Your task to perform on an android device: open app "Pinterest" Image 0: 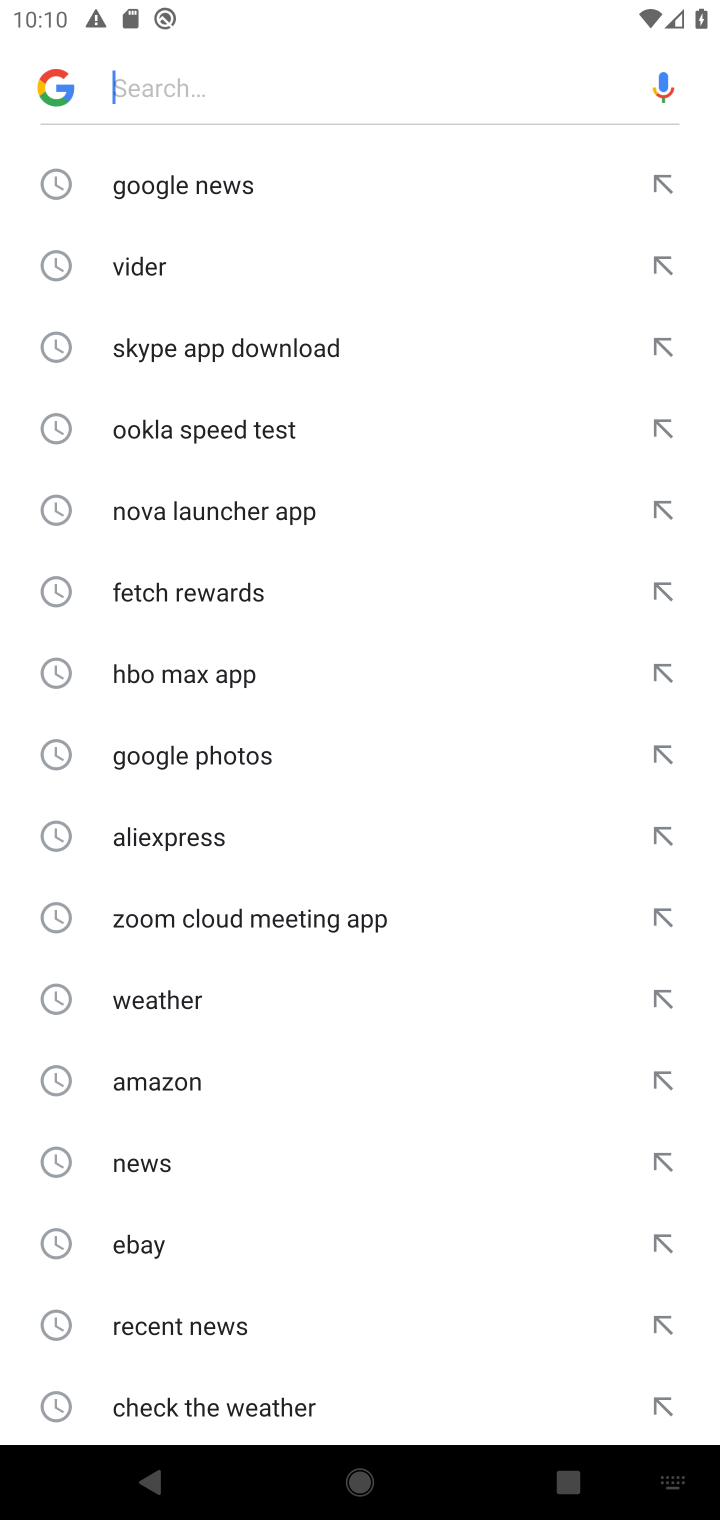
Step 0: press home button
Your task to perform on an android device: open app "Pinterest" Image 1: 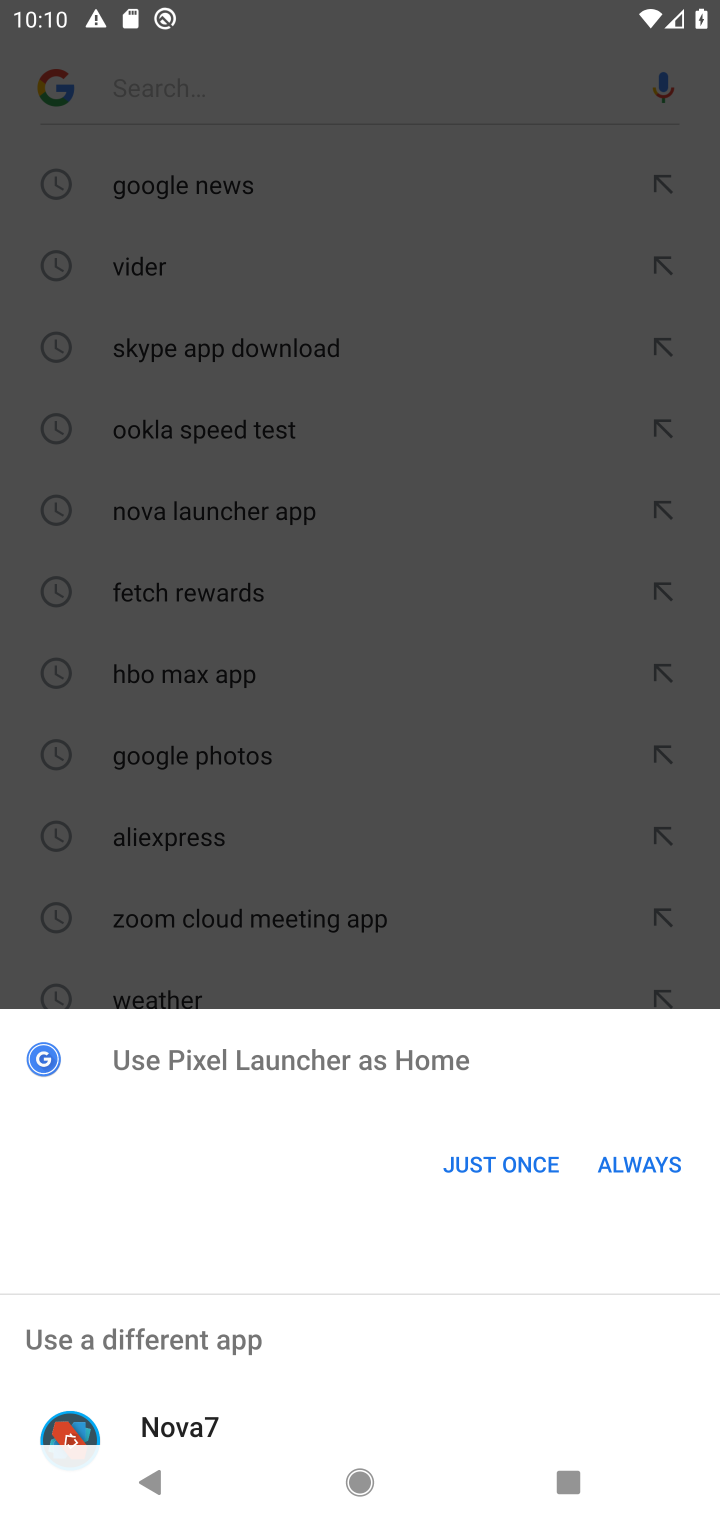
Step 1: click (402, 1184)
Your task to perform on an android device: open app "Pinterest" Image 2: 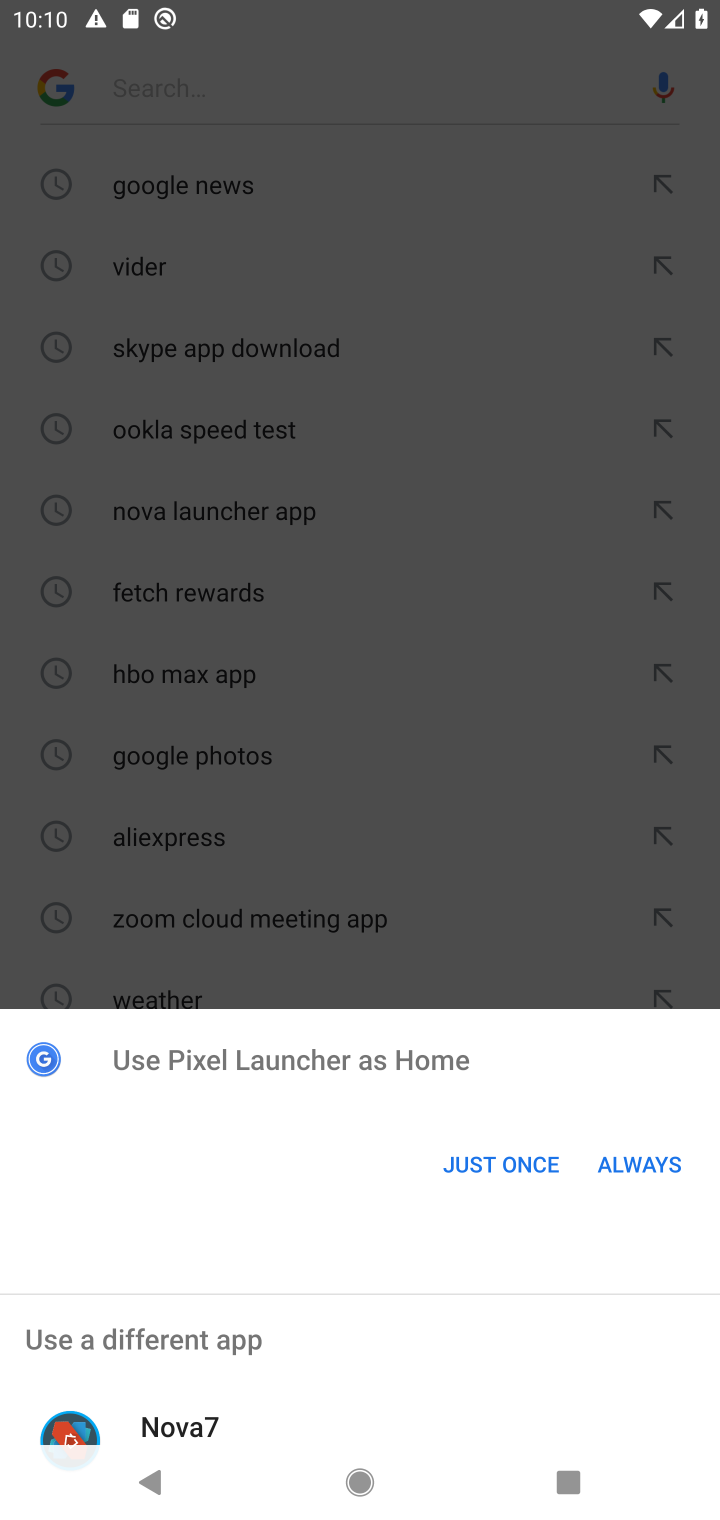
Step 2: click (484, 1174)
Your task to perform on an android device: open app "Pinterest" Image 3: 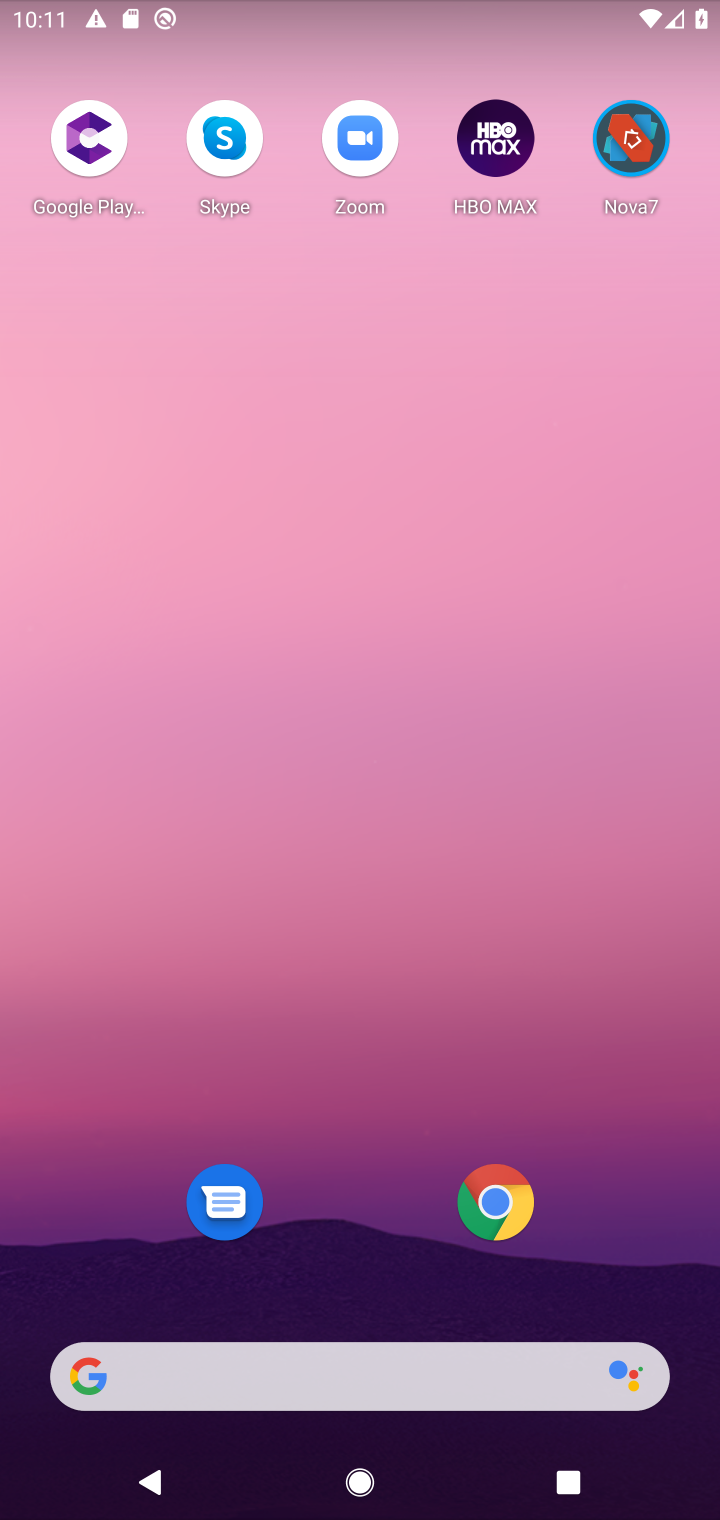
Step 3: click (467, 1380)
Your task to perform on an android device: open app "Pinterest" Image 4: 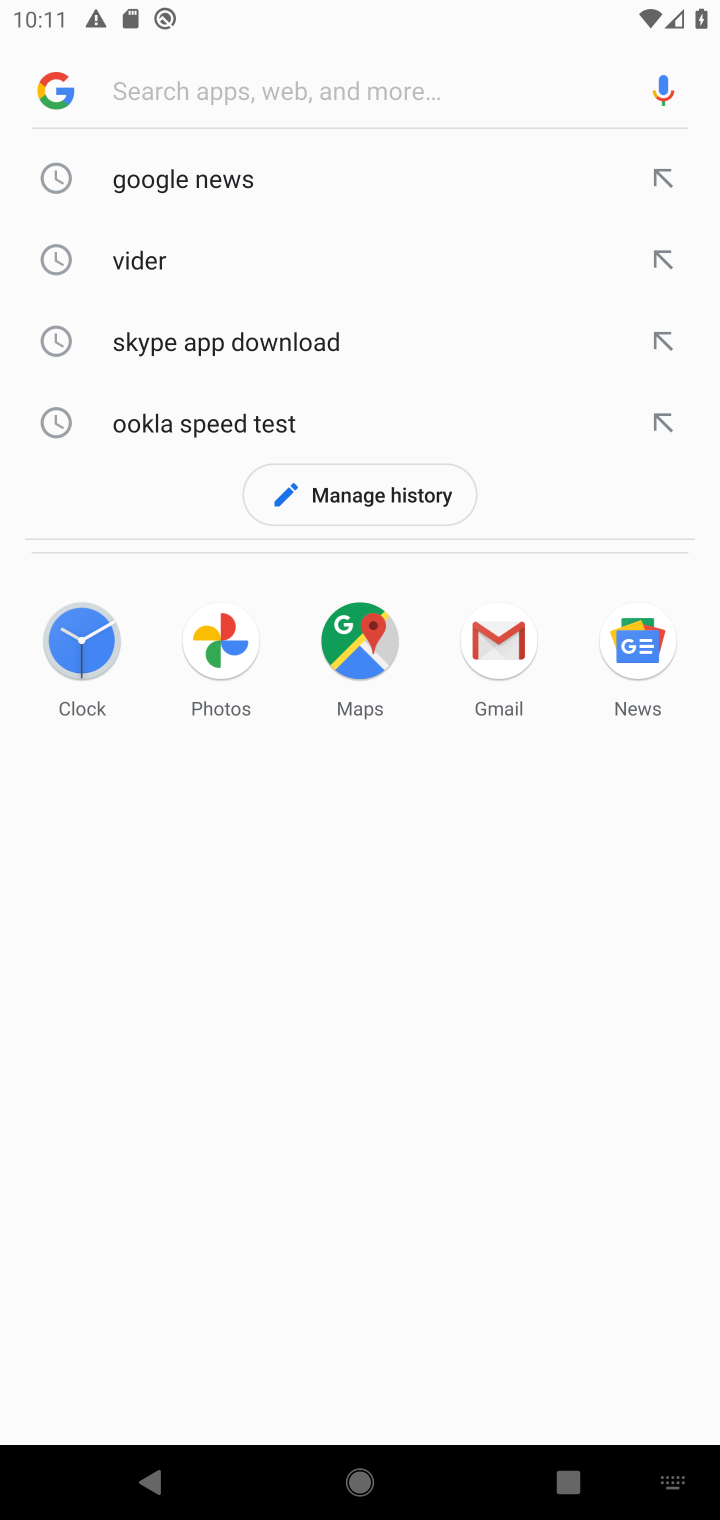
Step 4: type "pinterest"
Your task to perform on an android device: open app "Pinterest" Image 5: 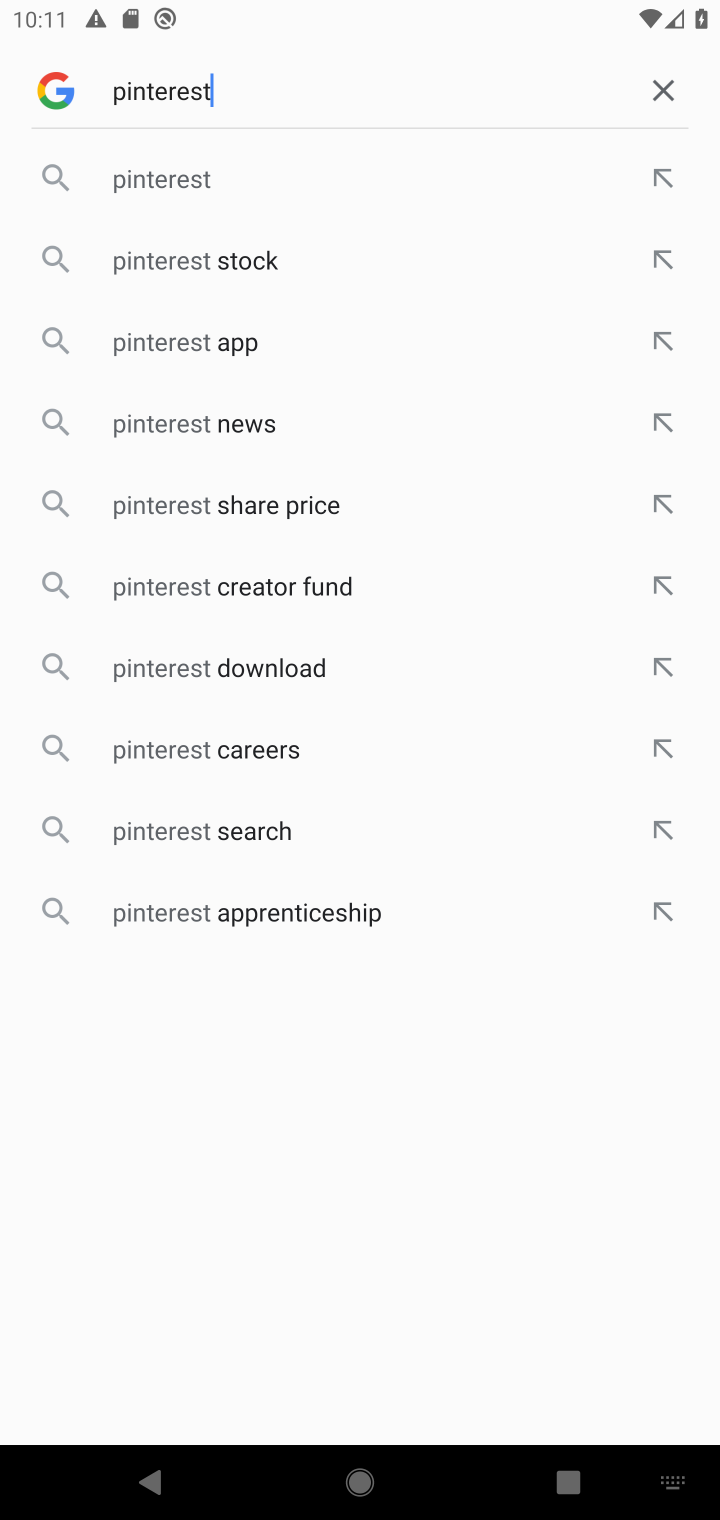
Step 5: click (142, 191)
Your task to perform on an android device: open app "Pinterest" Image 6: 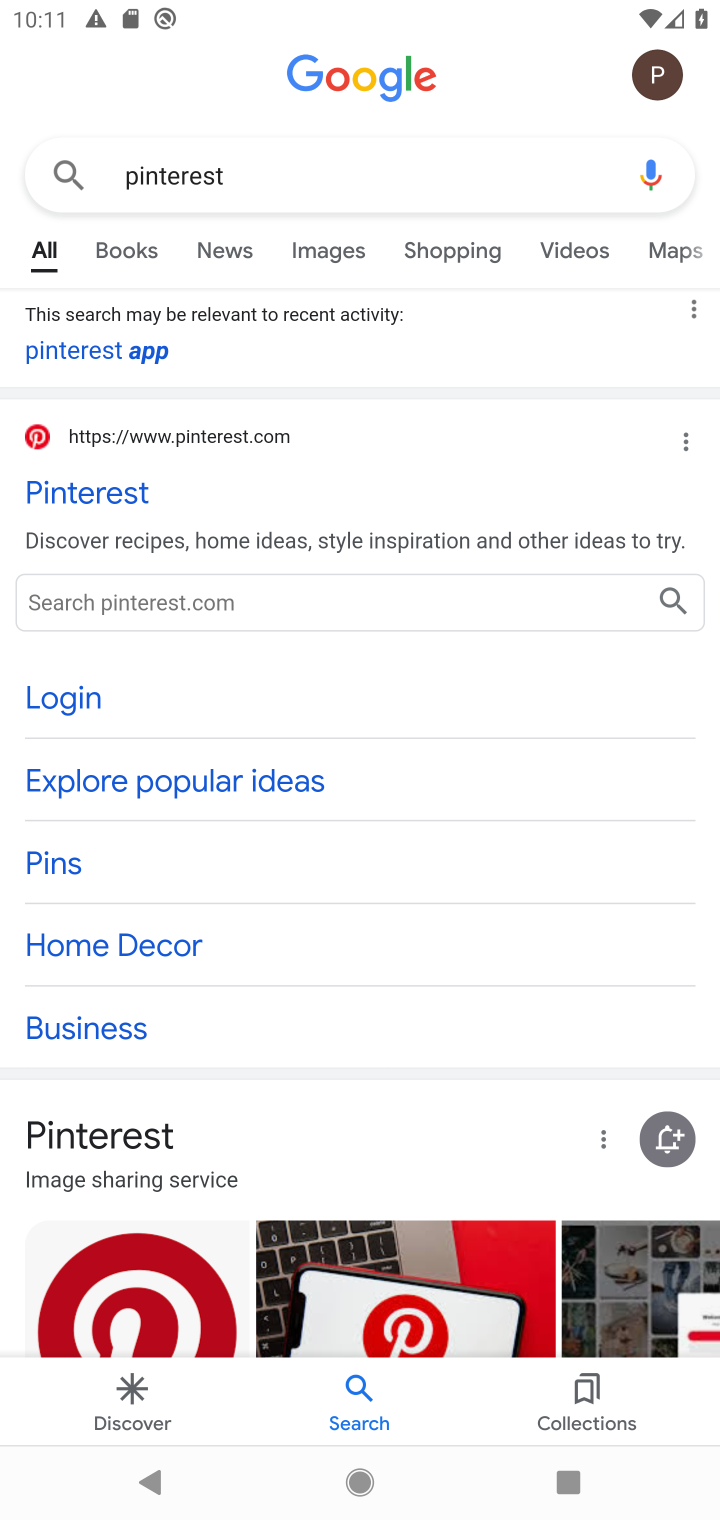
Step 6: drag from (392, 1106) to (463, 180)
Your task to perform on an android device: open app "Pinterest" Image 7: 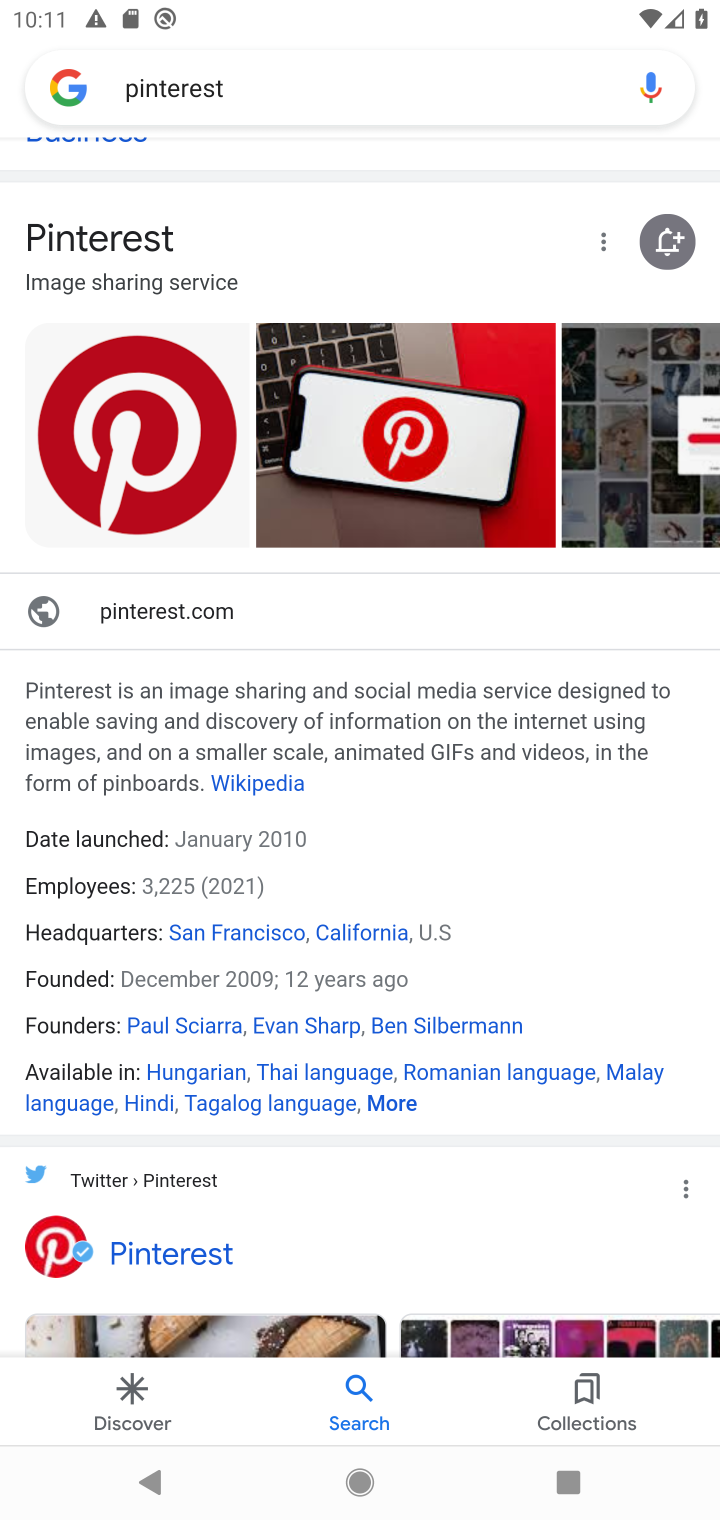
Step 7: drag from (542, 943) to (617, 319)
Your task to perform on an android device: open app "Pinterest" Image 8: 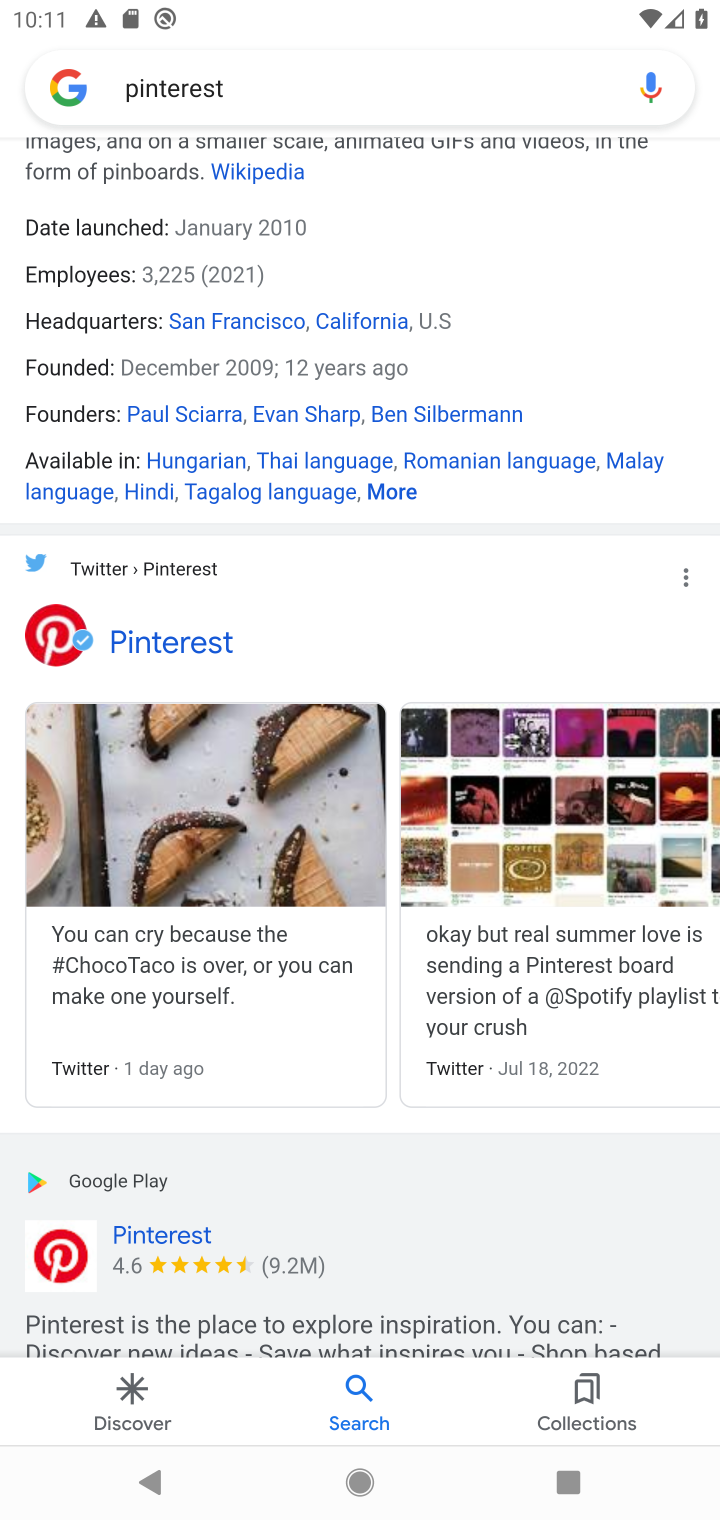
Step 8: drag from (401, 1254) to (450, 258)
Your task to perform on an android device: open app "Pinterest" Image 9: 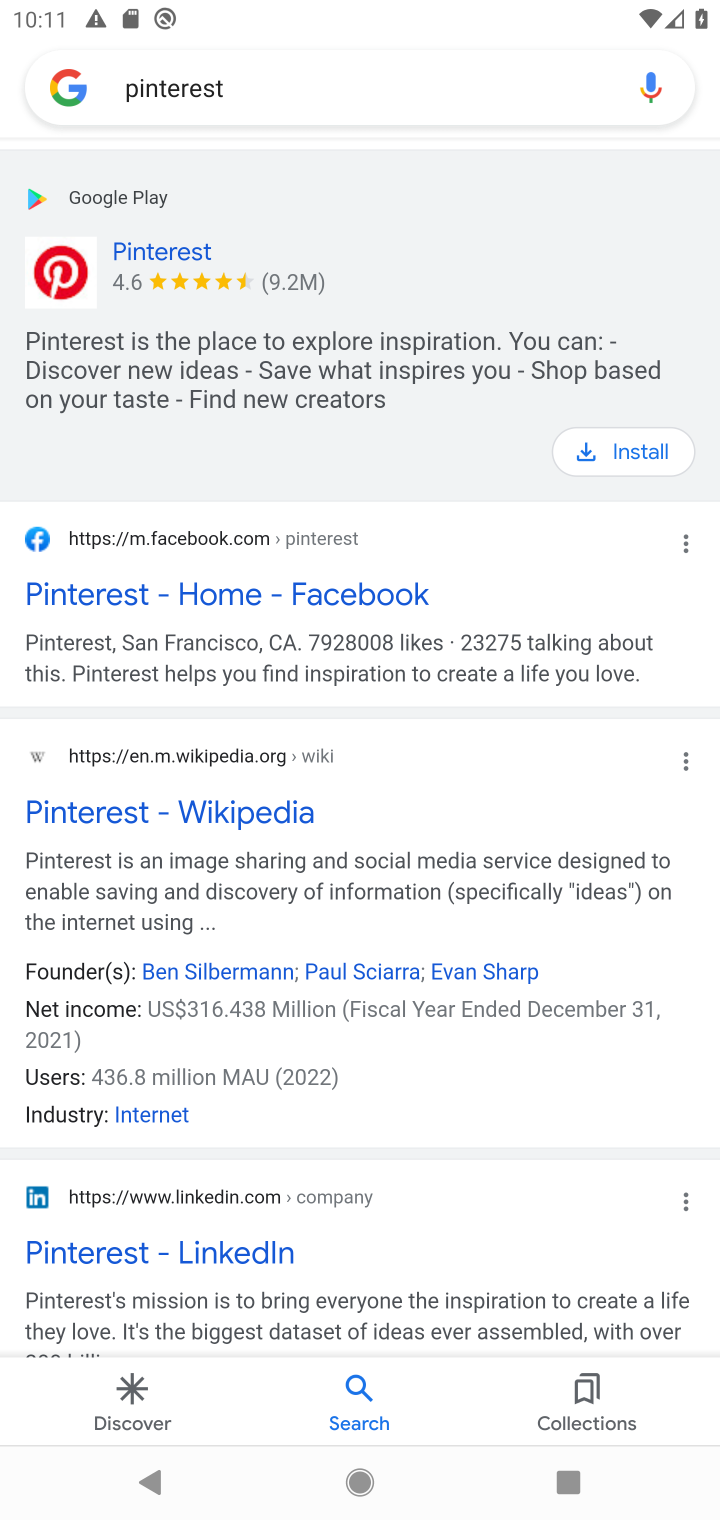
Step 9: click (606, 465)
Your task to perform on an android device: open app "Pinterest" Image 10: 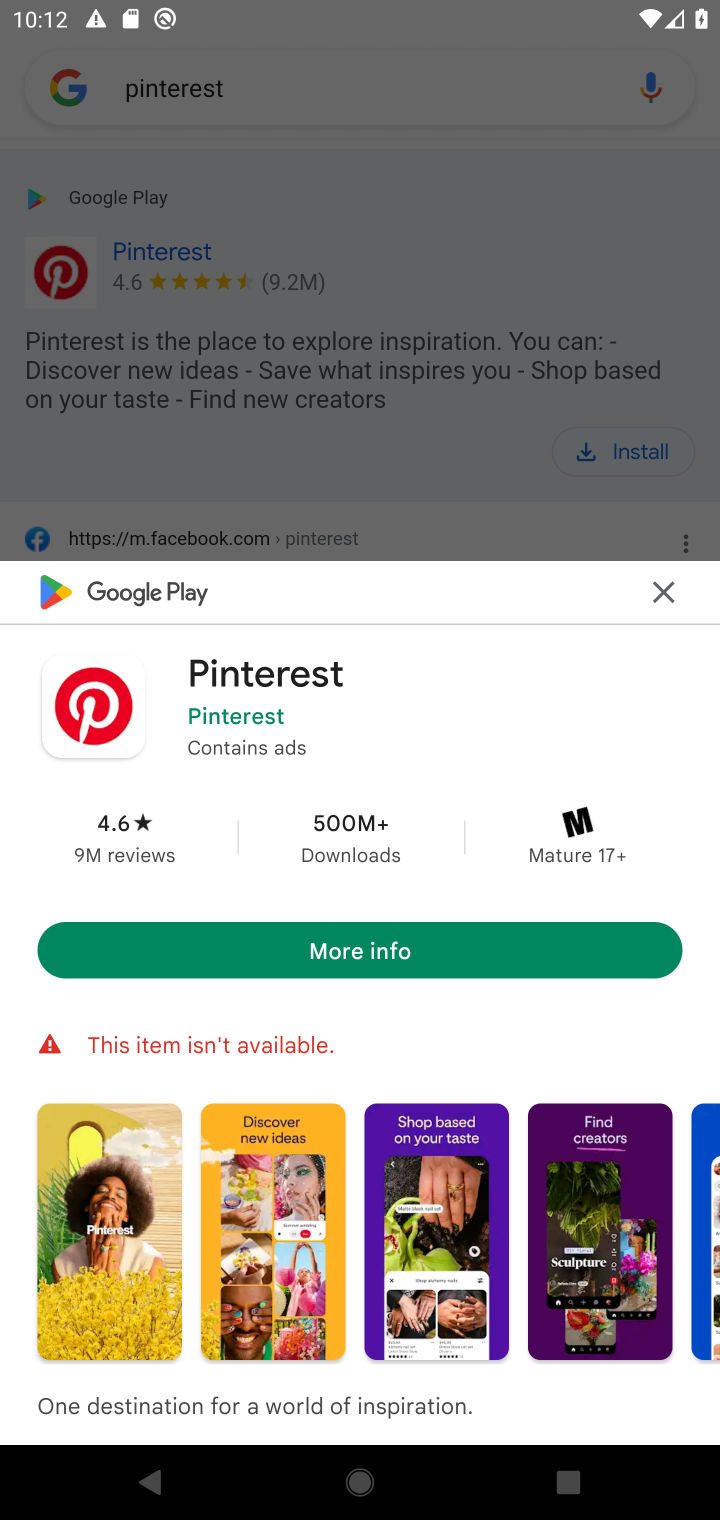
Step 10: click (606, 465)
Your task to perform on an android device: open app "Pinterest" Image 11: 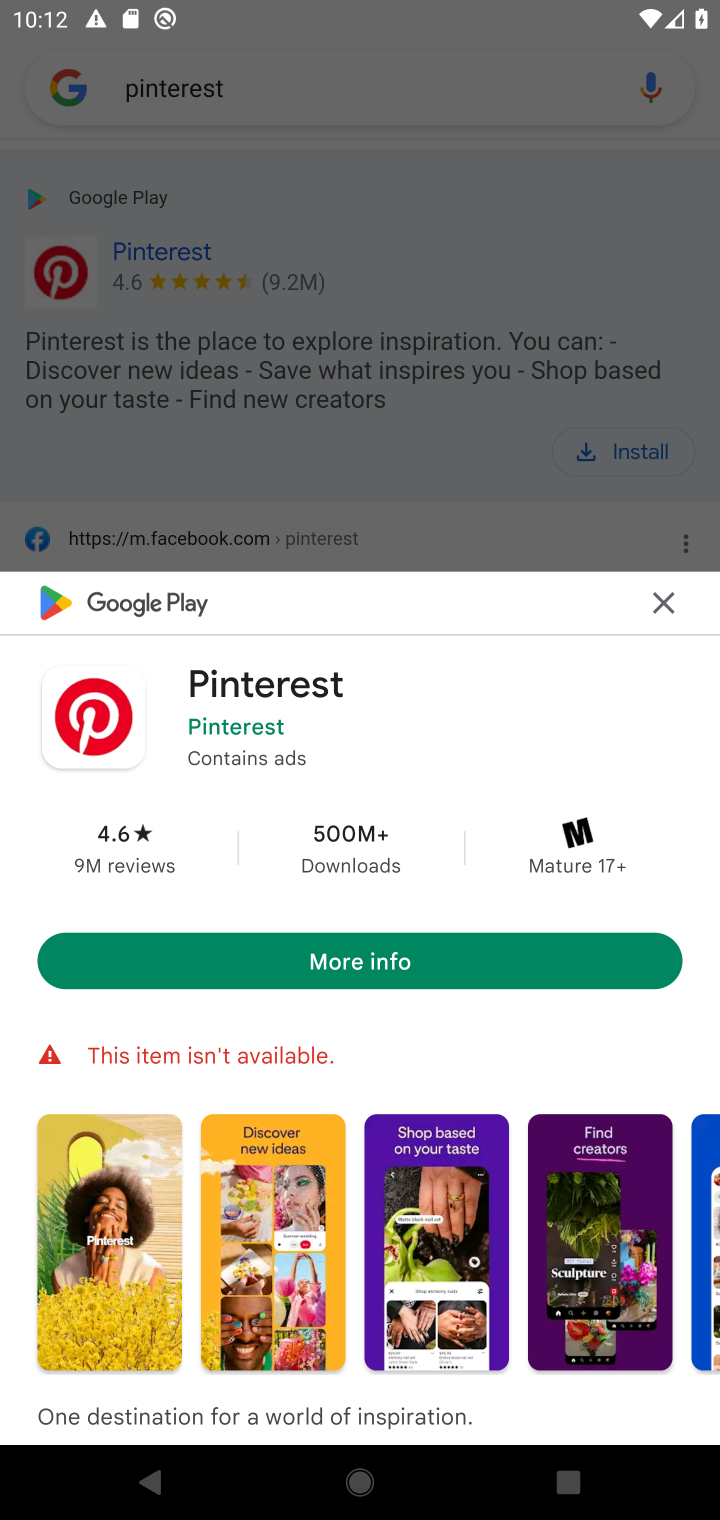
Step 11: task complete